Your task to perform on an android device: Open Youtube and go to "Your channel" Image 0: 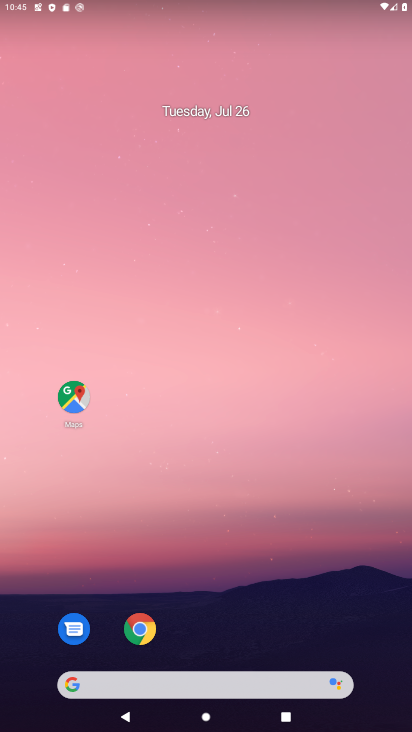
Step 0: drag from (220, 639) to (136, 216)
Your task to perform on an android device: Open Youtube and go to "Your channel" Image 1: 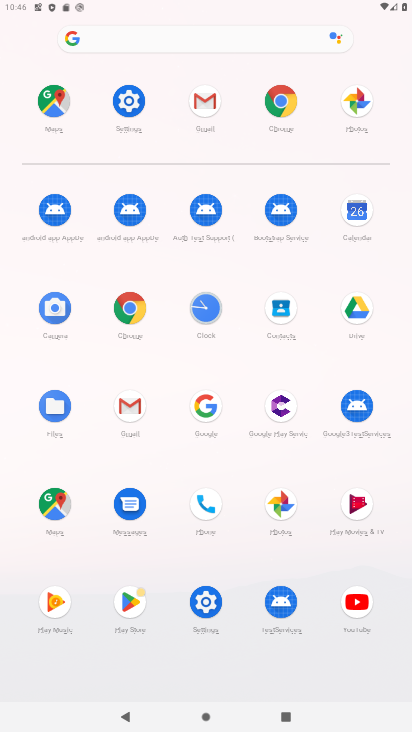
Step 1: click (352, 616)
Your task to perform on an android device: Open Youtube and go to "Your channel" Image 2: 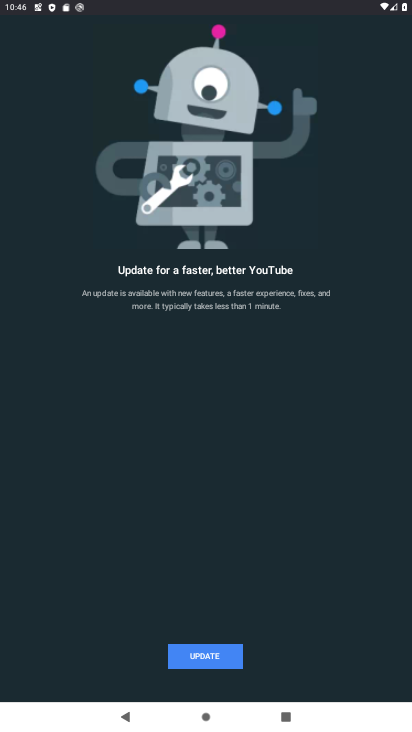
Step 2: click (222, 662)
Your task to perform on an android device: Open Youtube and go to "Your channel" Image 3: 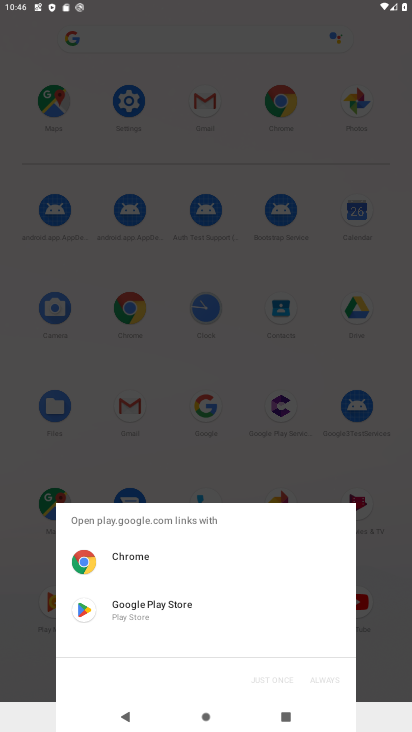
Step 3: click (132, 629)
Your task to perform on an android device: Open Youtube and go to "Your channel" Image 4: 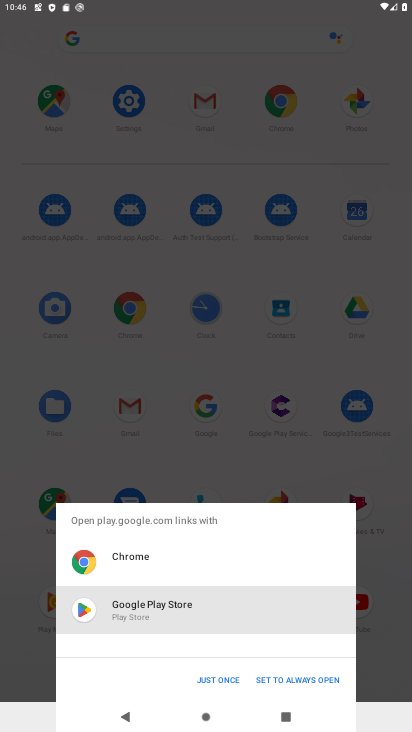
Step 4: click (214, 688)
Your task to perform on an android device: Open Youtube and go to "Your channel" Image 5: 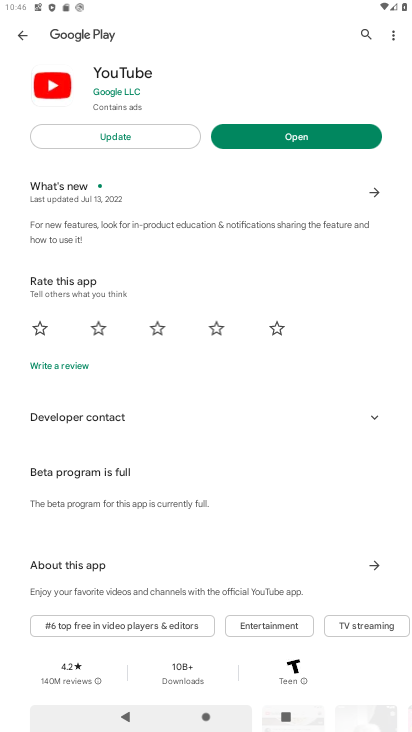
Step 5: click (114, 142)
Your task to perform on an android device: Open Youtube and go to "Your channel" Image 6: 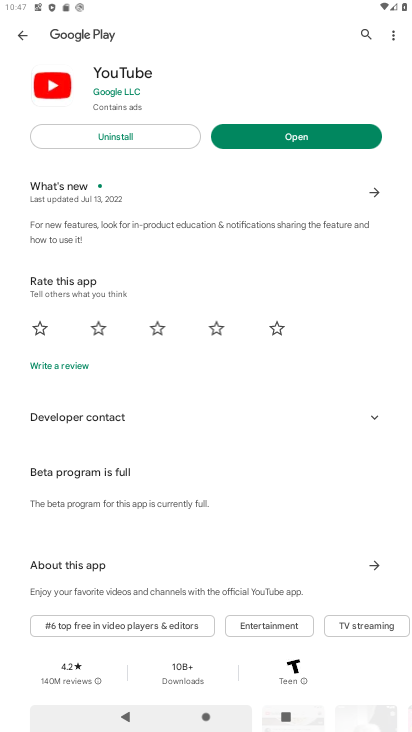
Step 6: click (302, 135)
Your task to perform on an android device: Open Youtube and go to "Your channel" Image 7: 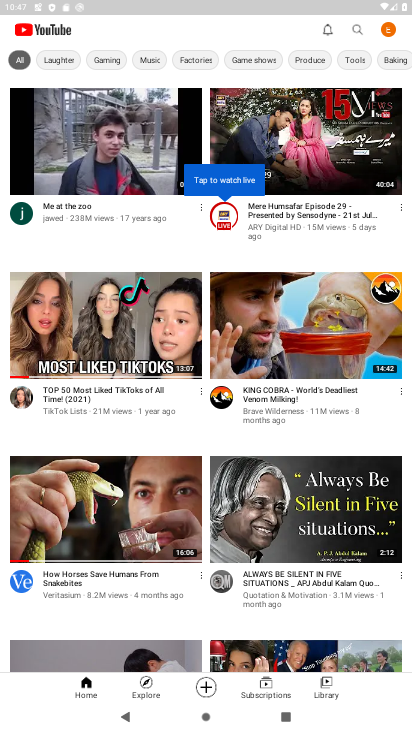
Step 7: click (392, 27)
Your task to perform on an android device: Open Youtube and go to "Your channel" Image 8: 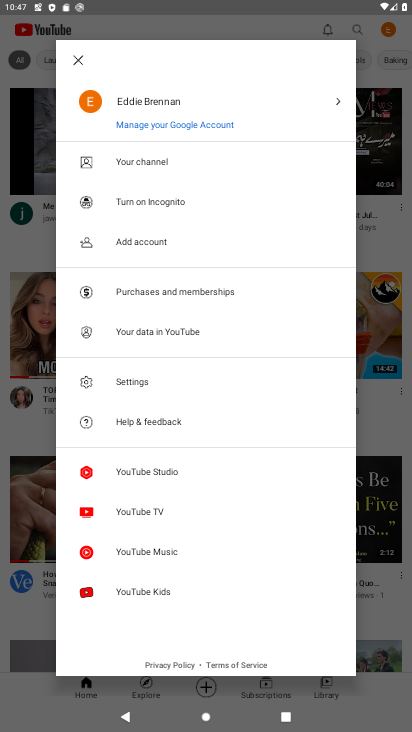
Step 8: click (140, 162)
Your task to perform on an android device: Open Youtube and go to "Your channel" Image 9: 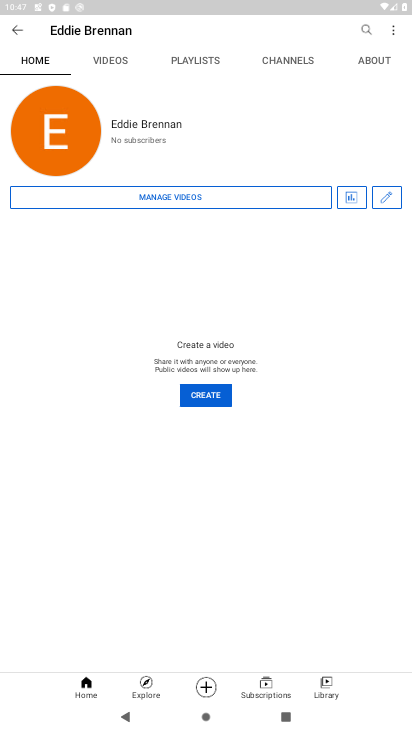
Step 9: task complete